Your task to perform on an android device: What's on my calendar tomorrow? Image 0: 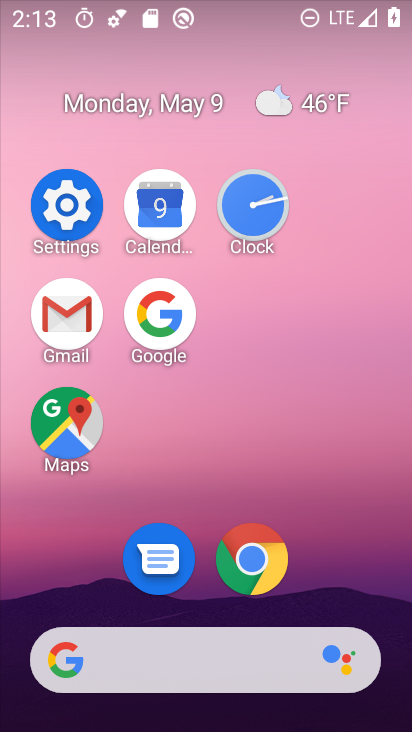
Step 0: click (166, 220)
Your task to perform on an android device: What's on my calendar tomorrow? Image 1: 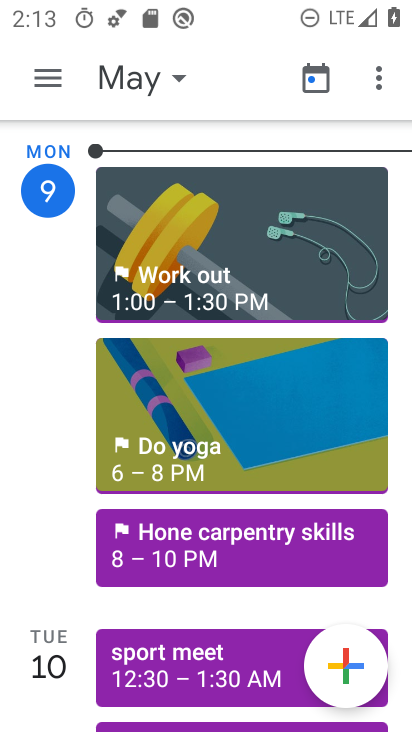
Step 1: click (62, 654)
Your task to perform on an android device: What's on my calendar tomorrow? Image 2: 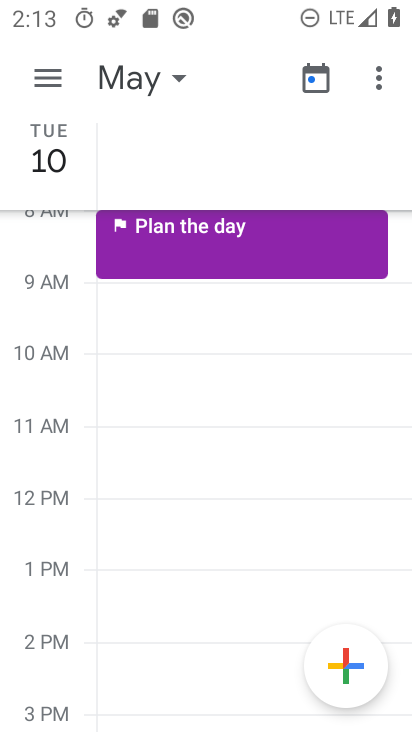
Step 2: task complete